Your task to perform on an android device: change your default location settings in chrome Image 0: 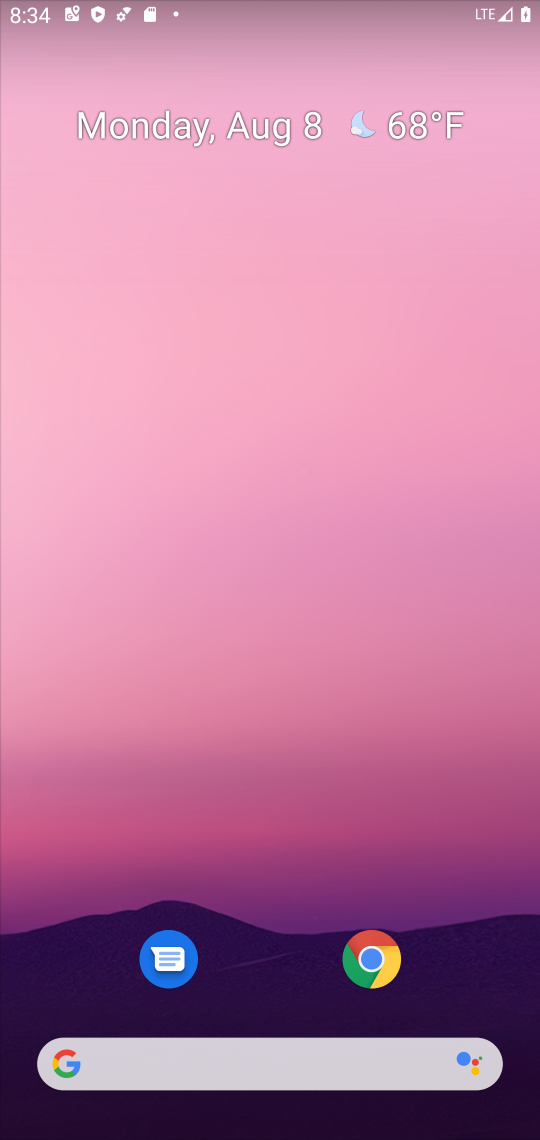
Step 0: drag from (463, 932) to (269, 14)
Your task to perform on an android device: change your default location settings in chrome Image 1: 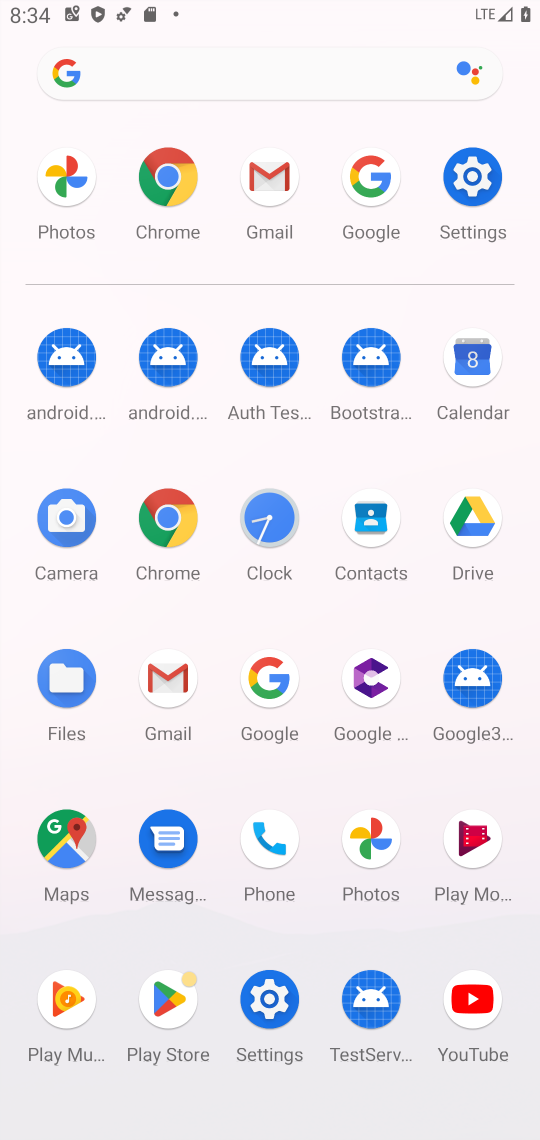
Step 1: click (170, 248)
Your task to perform on an android device: change your default location settings in chrome Image 2: 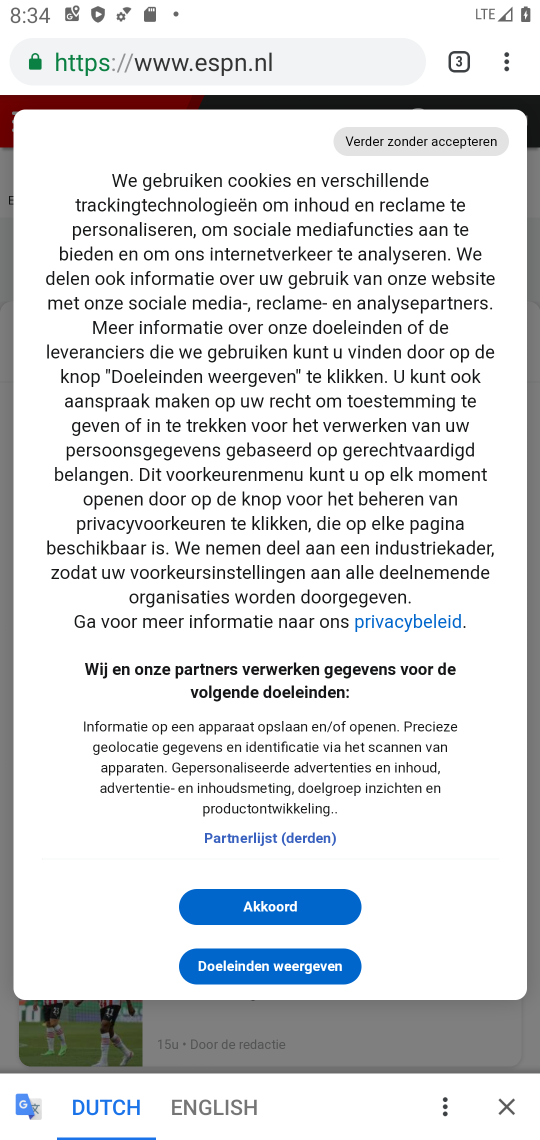
Step 2: click (501, 63)
Your task to perform on an android device: change your default location settings in chrome Image 3: 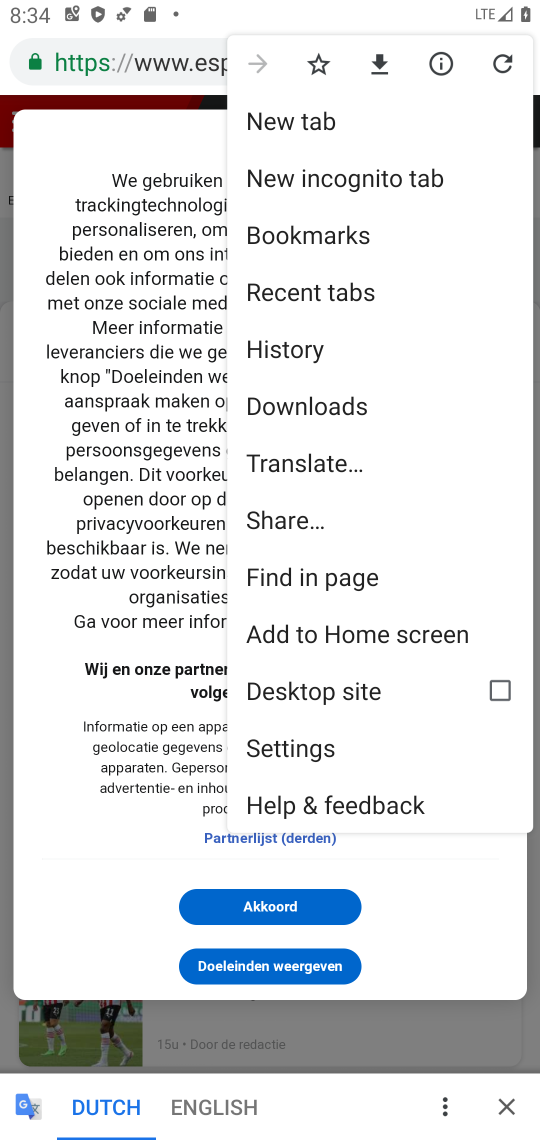
Step 3: click (296, 748)
Your task to perform on an android device: change your default location settings in chrome Image 4: 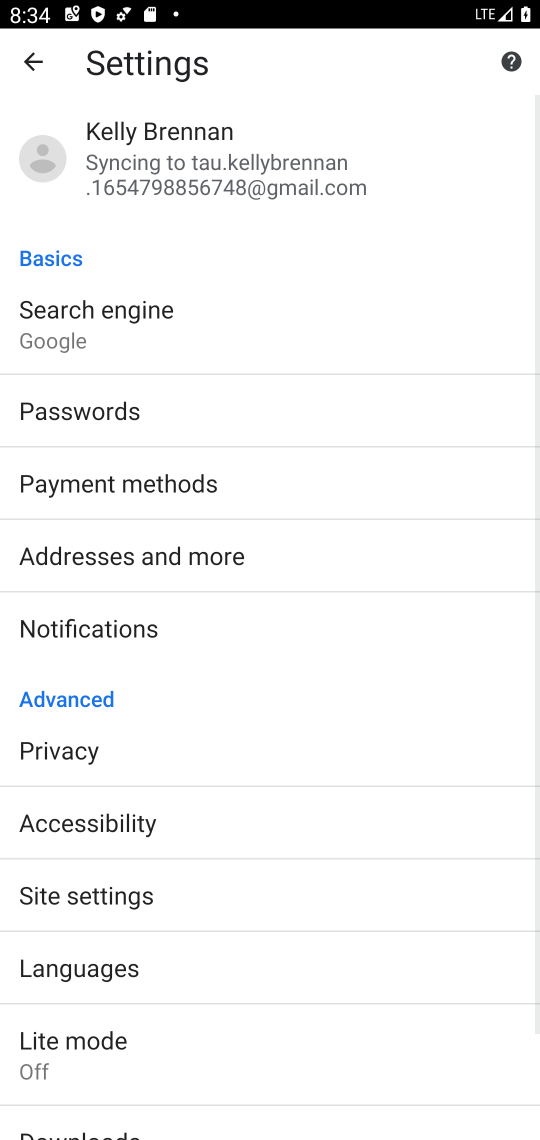
Step 4: click (61, 335)
Your task to perform on an android device: change your default location settings in chrome Image 5: 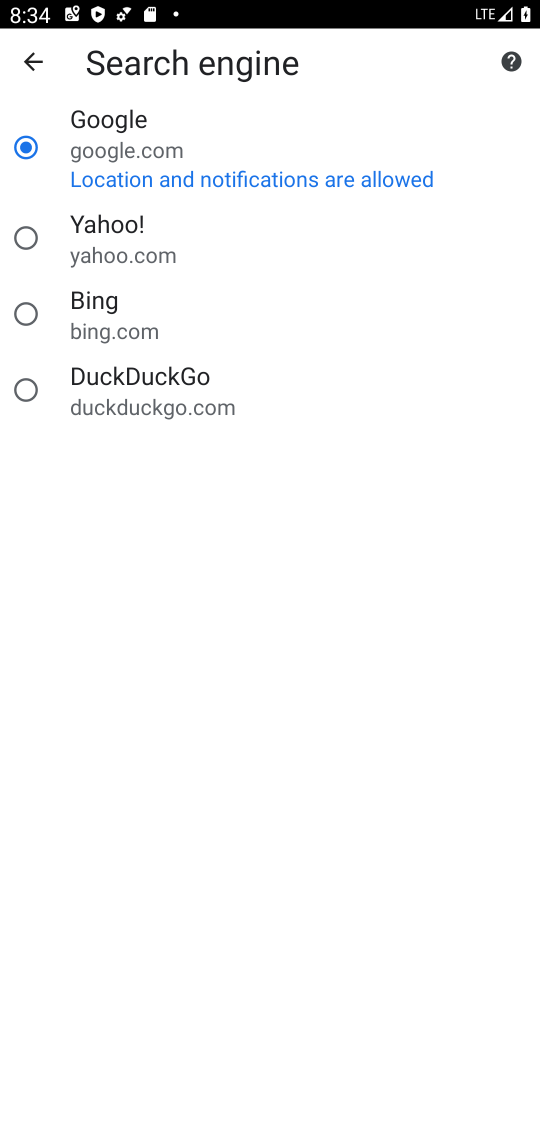
Step 5: click (148, 310)
Your task to perform on an android device: change your default location settings in chrome Image 6: 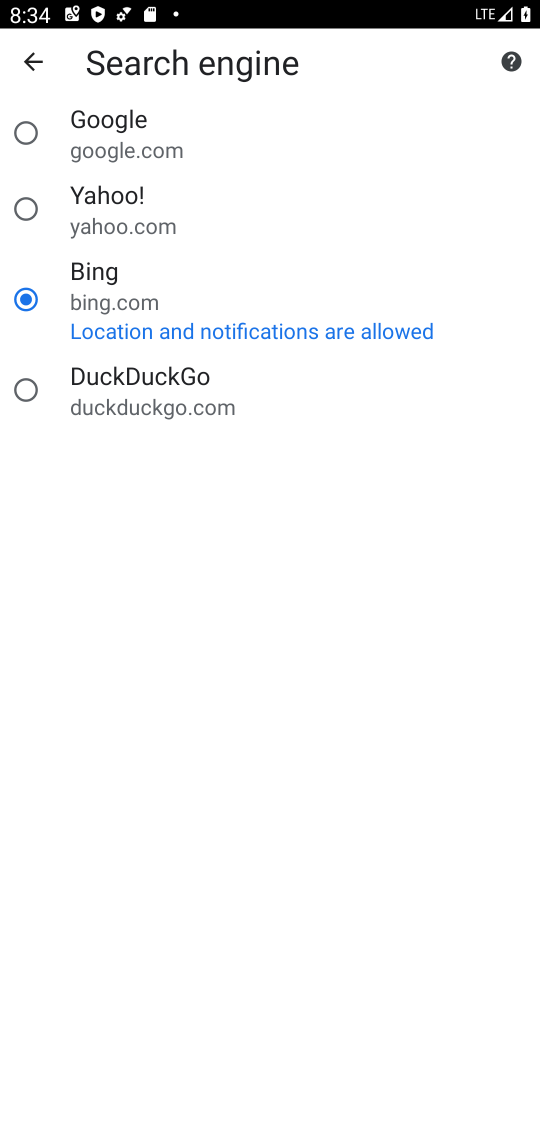
Step 6: task complete